Your task to perform on an android device: clear history in the chrome app Image 0: 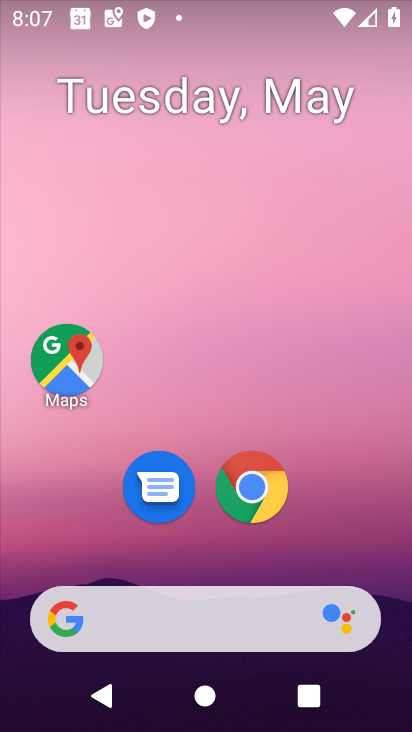
Step 0: drag from (385, 575) to (391, 253)
Your task to perform on an android device: clear history in the chrome app Image 1: 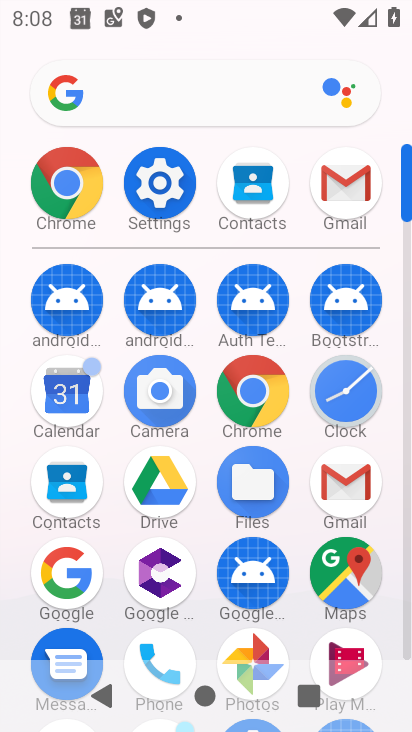
Step 1: click (273, 407)
Your task to perform on an android device: clear history in the chrome app Image 2: 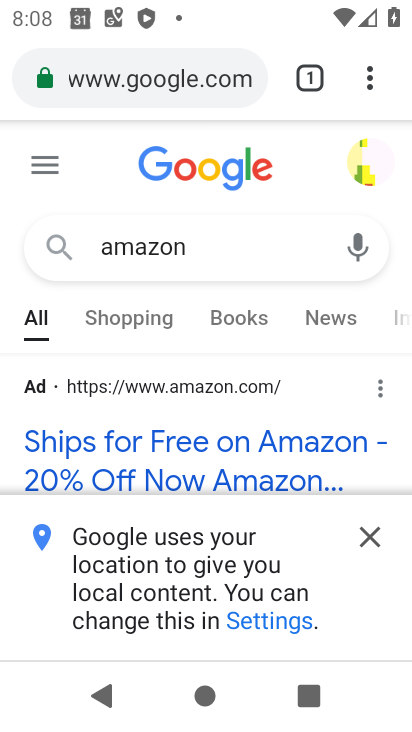
Step 2: click (369, 93)
Your task to perform on an android device: clear history in the chrome app Image 3: 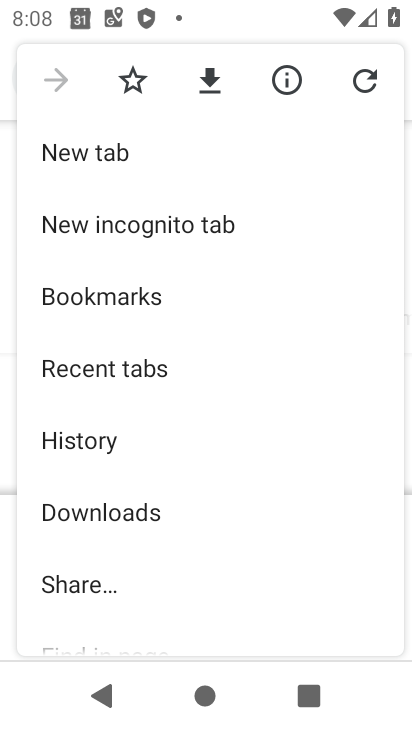
Step 3: click (142, 445)
Your task to perform on an android device: clear history in the chrome app Image 4: 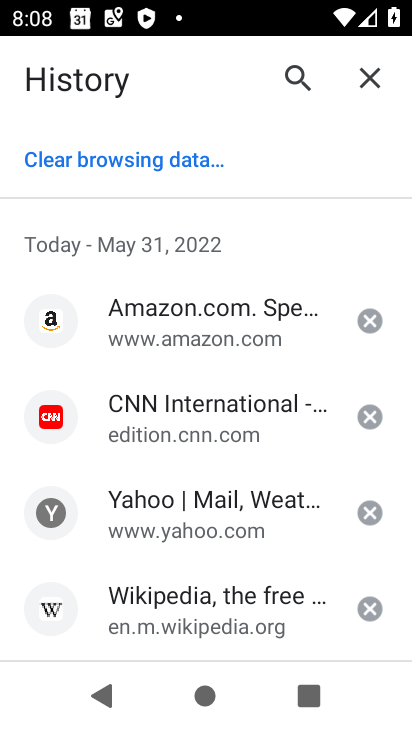
Step 4: click (205, 175)
Your task to perform on an android device: clear history in the chrome app Image 5: 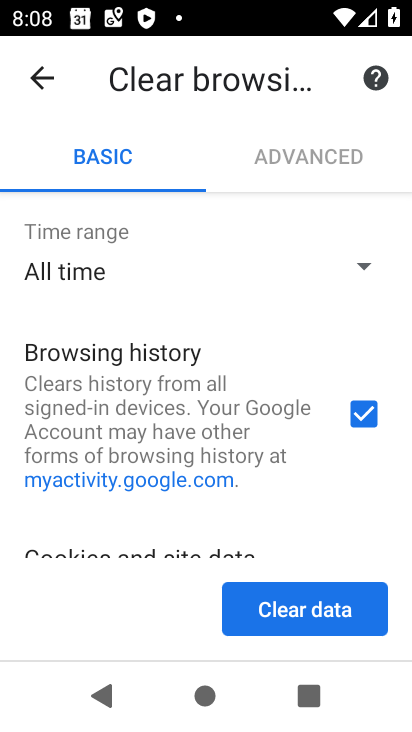
Step 5: click (271, 608)
Your task to perform on an android device: clear history in the chrome app Image 6: 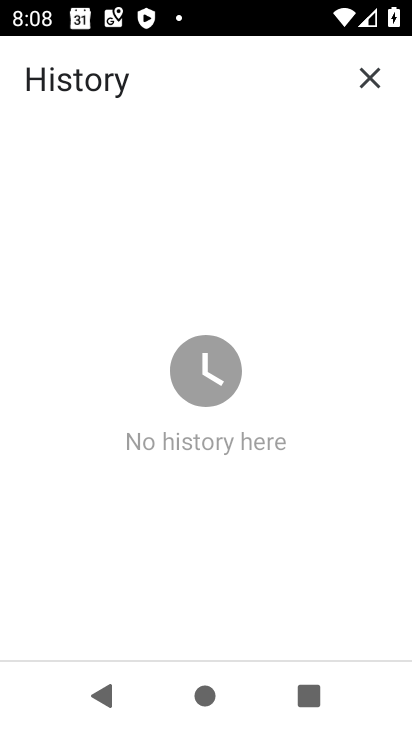
Step 6: task complete